Your task to perform on an android device: Open settings Image 0: 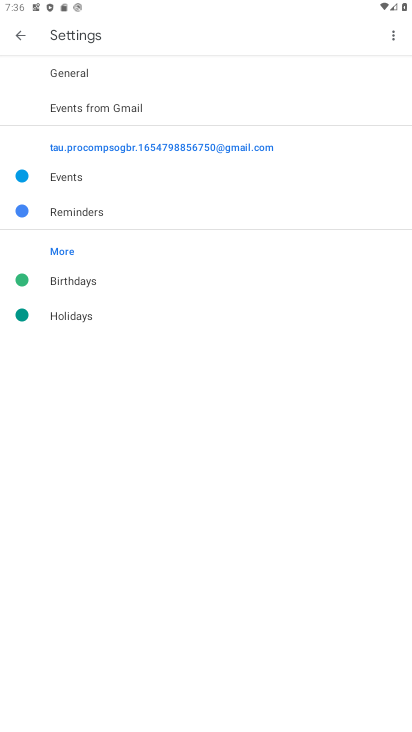
Step 0: press home button
Your task to perform on an android device: Open settings Image 1: 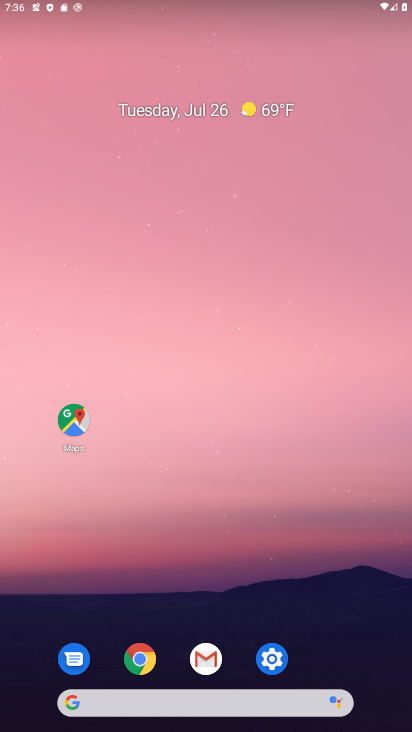
Step 1: click (267, 654)
Your task to perform on an android device: Open settings Image 2: 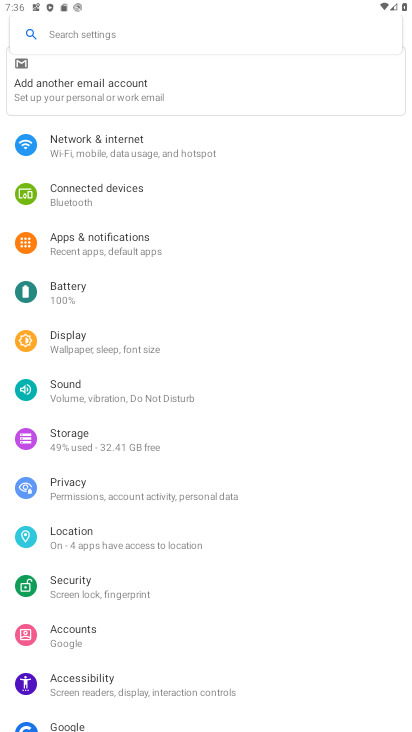
Step 2: task complete